Your task to perform on an android device: Search for bose soundlink on target.com, select the first entry, add it to the cart, then select checkout. Image 0: 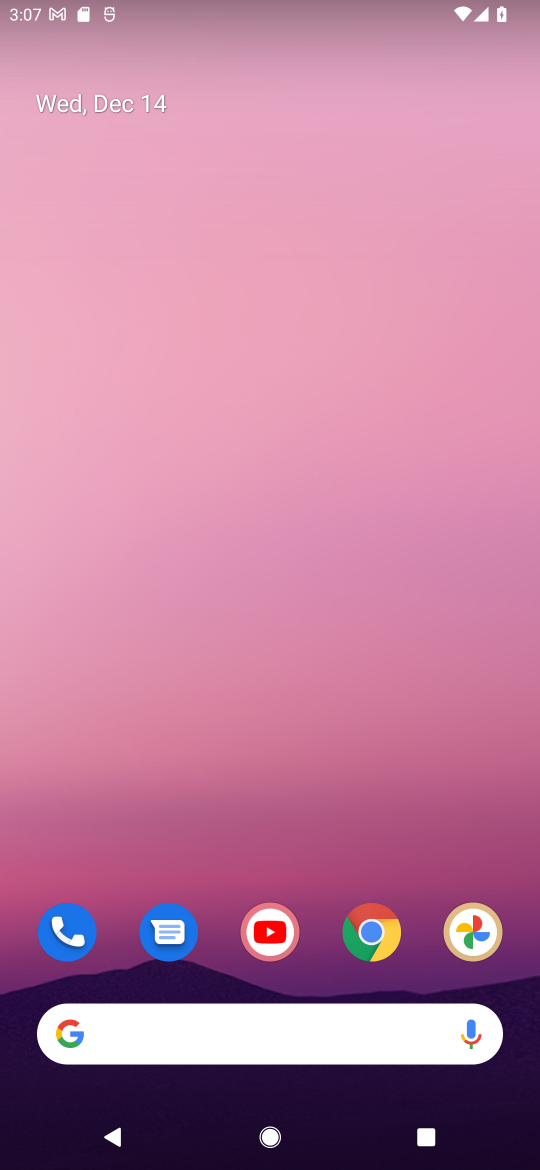
Step 0: click (243, 1024)
Your task to perform on an android device: Search for bose soundlink on target.com, select the first entry, add it to the cart, then select checkout. Image 1: 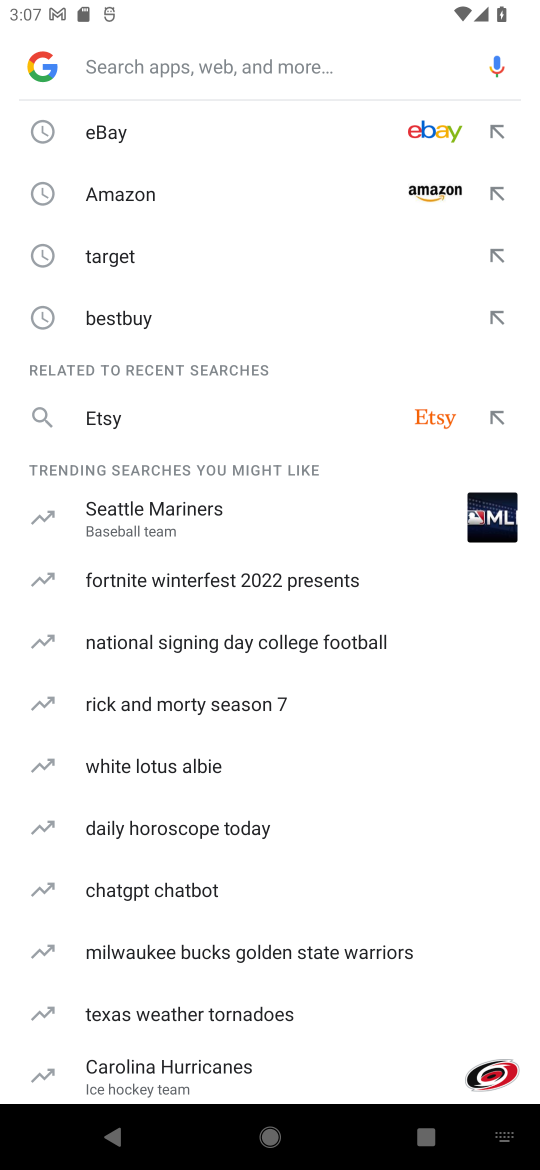
Step 1: click (101, 261)
Your task to perform on an android device: Search for bose soundlink on target.com, select the first entry, add it to the cart, then select checkout. Image 2: 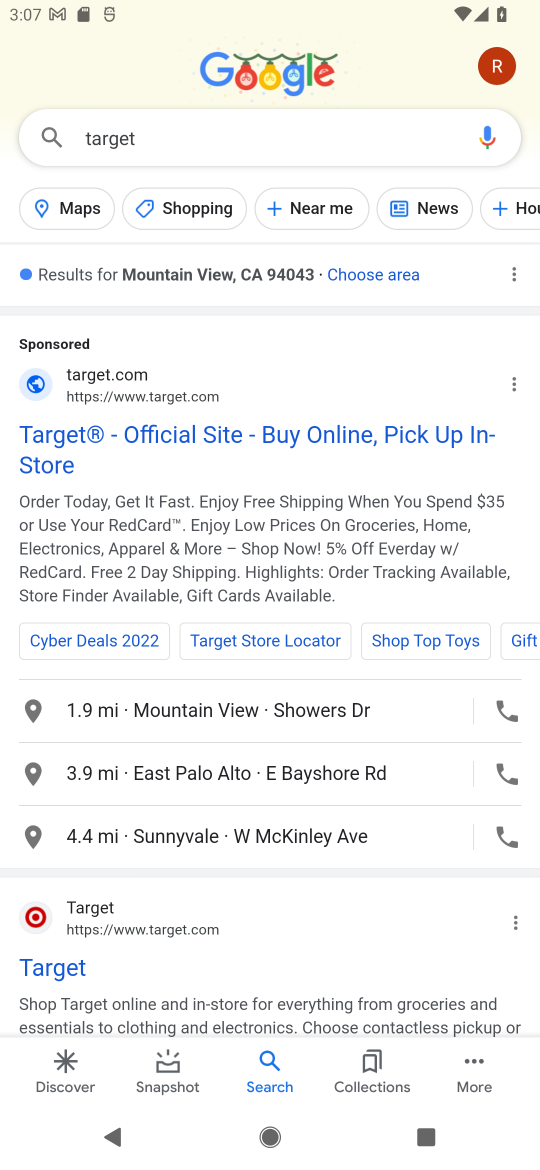
Step 2: click (41, 963)
Your task to perform on an android device: Search for bose soundlink on target.com, select the first entry, add it to the cart, then select checkout. Image 3: 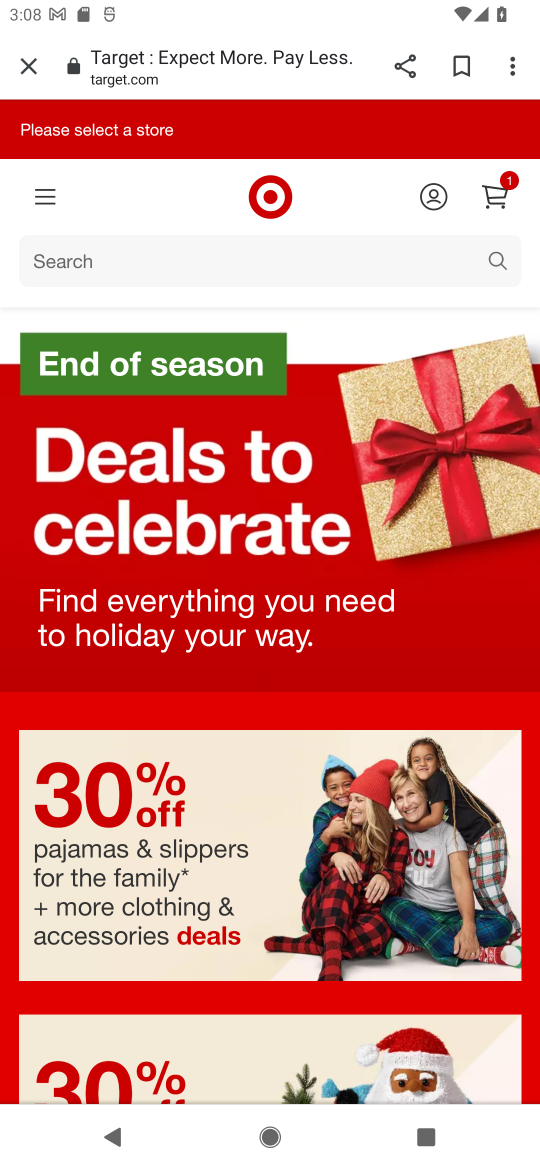
Step 3: click (179, 246)
Your task to perform on an android device: Search for bose soundlink on target.com, select the first entry, add it to the cart, then select checkout. Image 4: 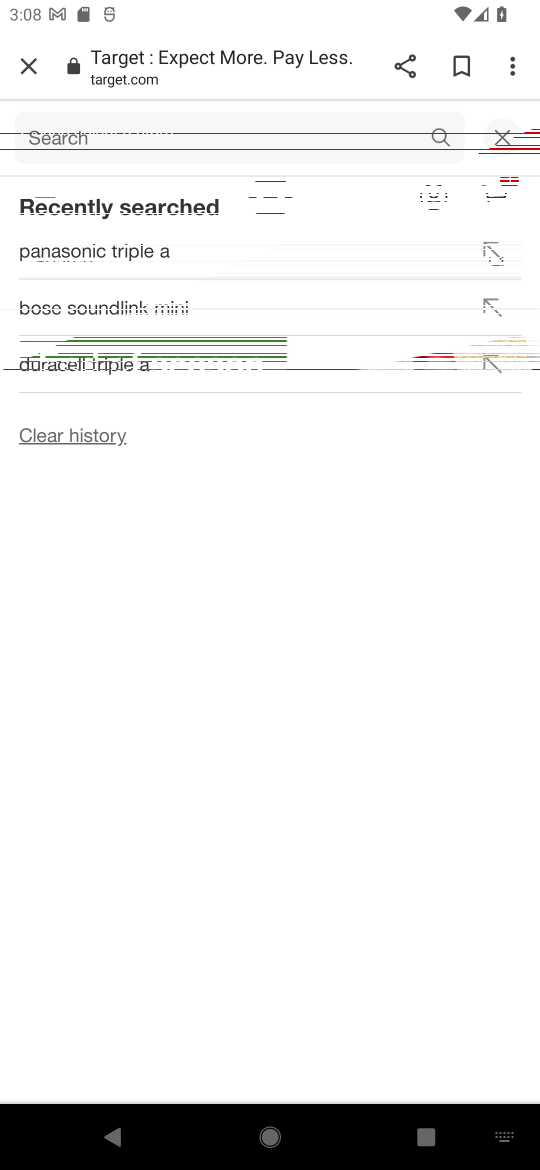
Step 4: type "bose soundlink "
Your task to perform on an android device: Search for bose soundlink on target.com, select the first entry, add it to the cart, then select checkout. Image 5: 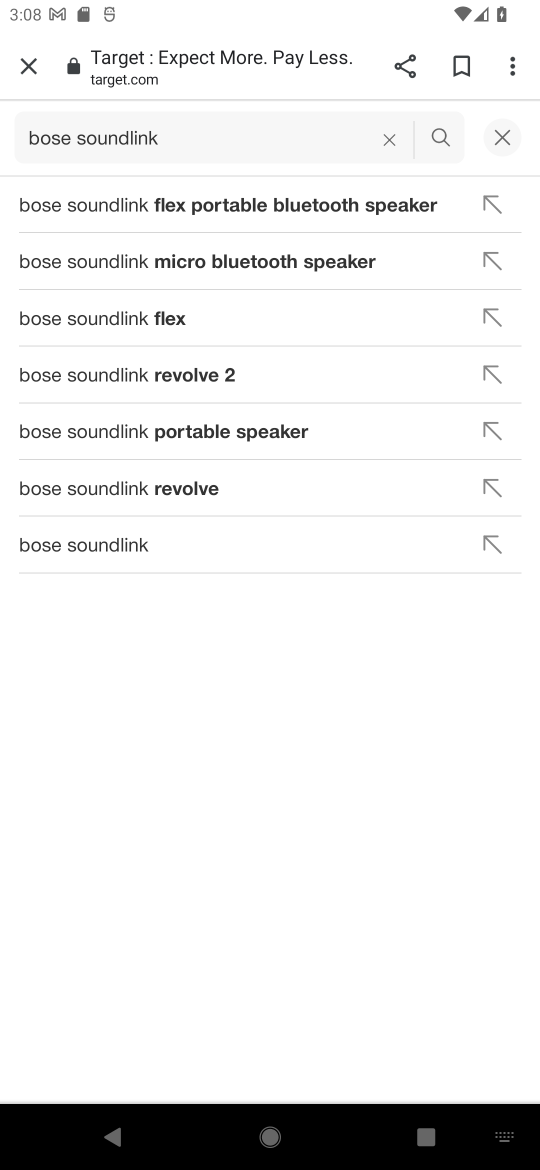
Step 5: click (438, 136)
Your task to perform on an android device: Search for bose soundlink on target.com, select the first entry, add it to the cart, then select checkout. Image 6: 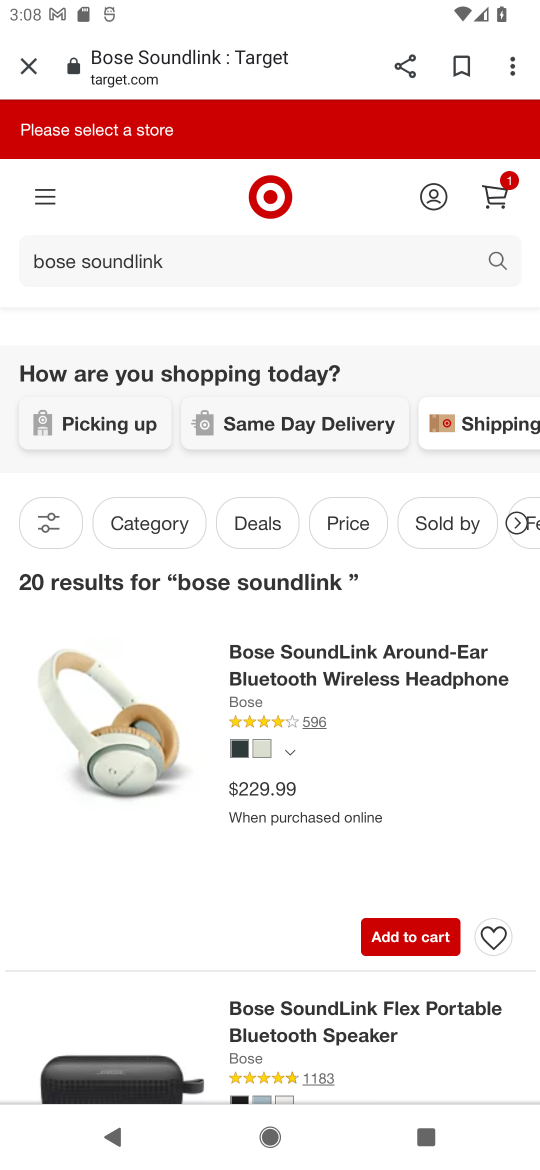
Step 6: click (397, 935)
Your task to perform on an android device: Search for bose soundlink on target.com, select the first entry, add it to the cart, then select checkout. Image 7: 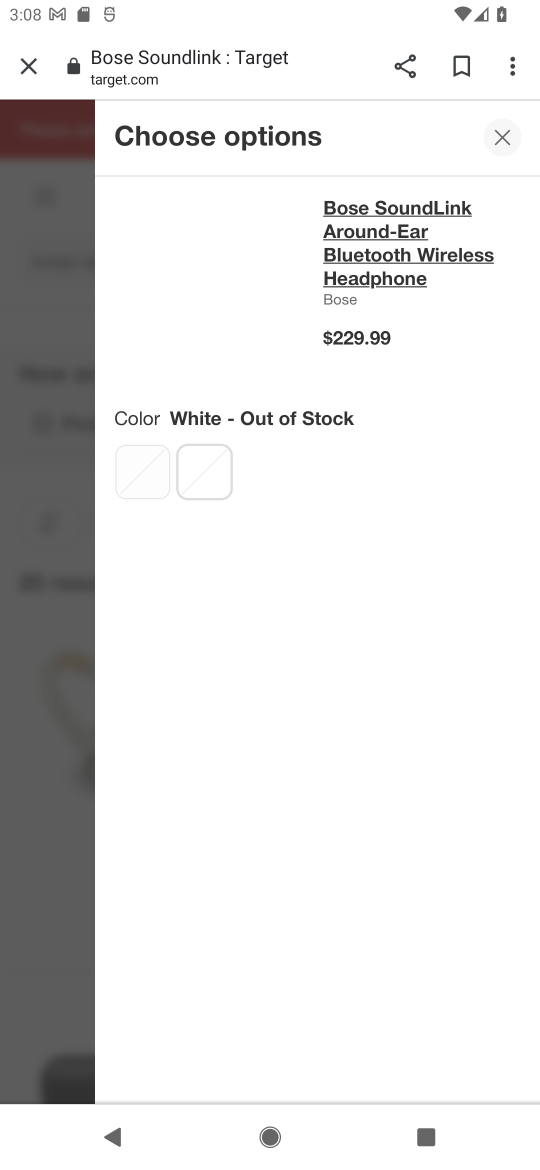
Step 7: task complete